Your task to perform on an android device: toggle location history Image 0: 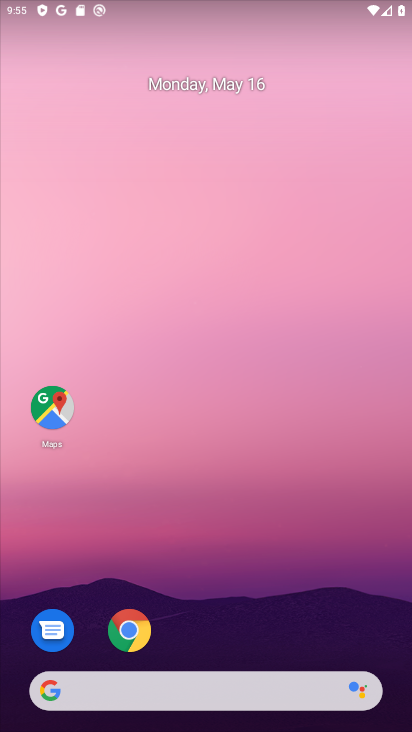
Step 0: drag from (211, 651) to (218, 1)
Your task to perform on an android device: toggle location history Image 1: 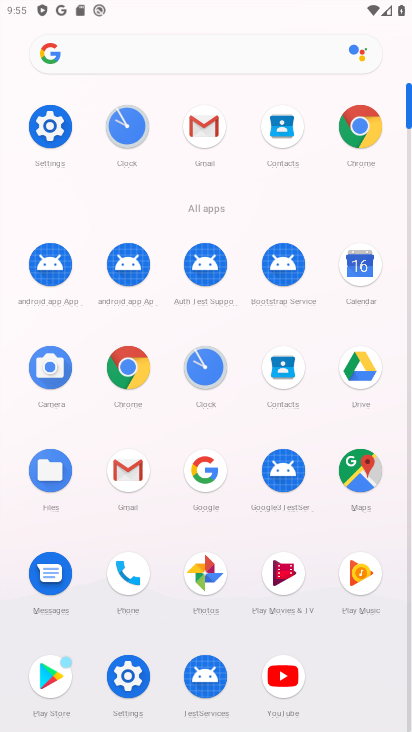
Step 1: click (56, 145)
Your task to perform on an android device: toggle location history Image 2: 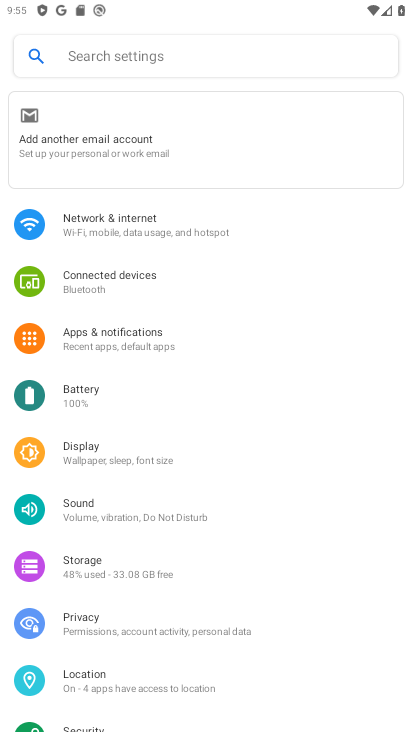
Step 2: drag from (84, 585) to (92, 437)
Your task to perform on an android device: toggle location history Image 3: 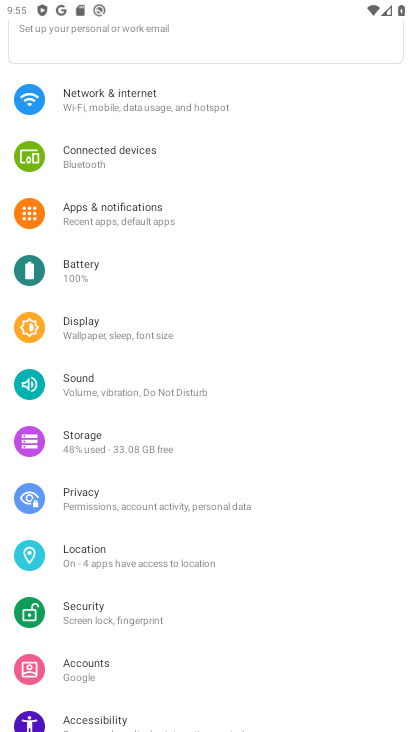
Step 3: click (101, 569)
Your task to perform on an android device: toggle location history Image 4: 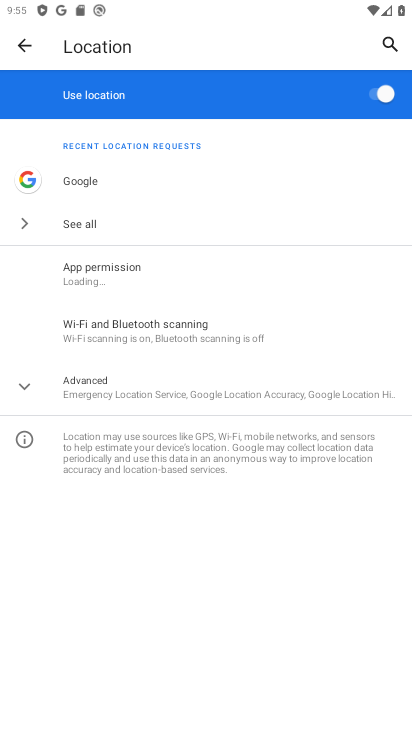
Step 4: click (134, 390)
Your task to perform on an android device: toggle location history Image 5: 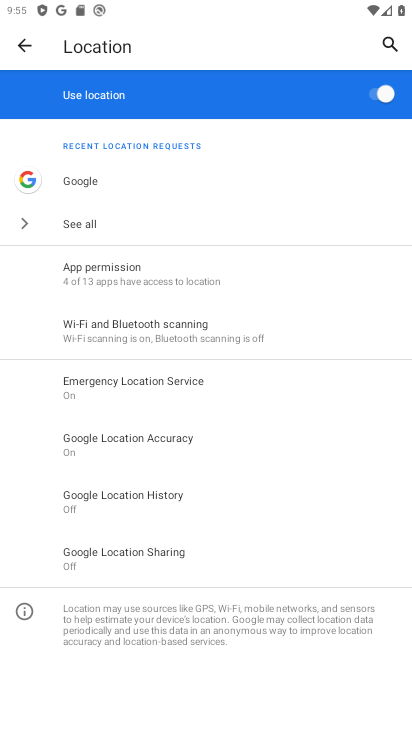
Step 5: click (148, 503)
Your task to perform on an android device: toggle location history Image 6: 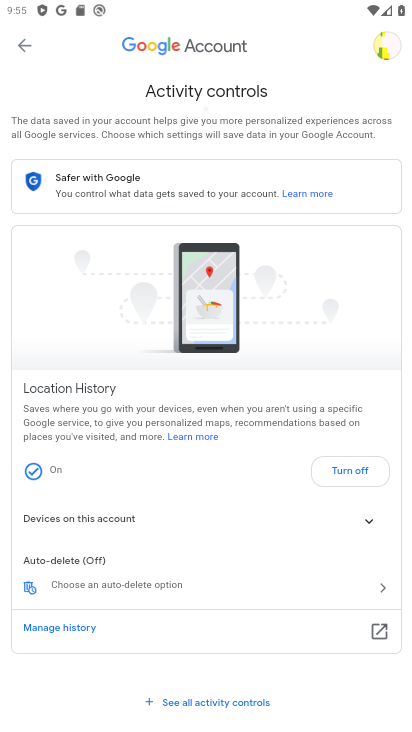
Step 6: click (353, 471)
Your task to perform on an android device: toggle location history Image 7: 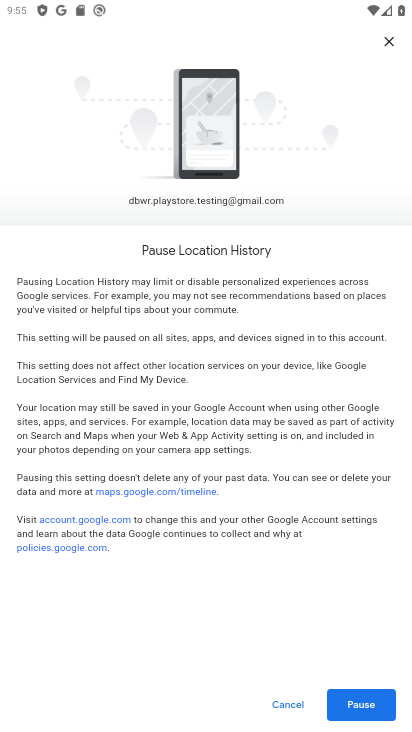
Step 7: click (362, 704)
Your task to perform on an android device: toggle location history Image 8: 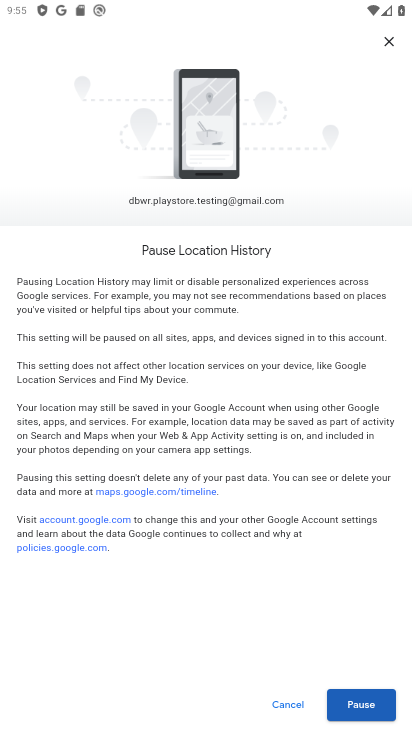
Step 8: click (363, 708)
Your task to perform on an android device: toggle location history Image 9: 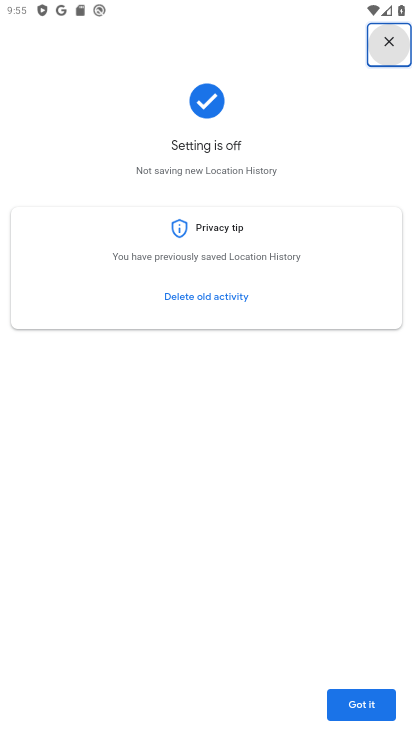
Step 9: click (363, 708)
Your task to perform on an android device: toggle location history Image 10: 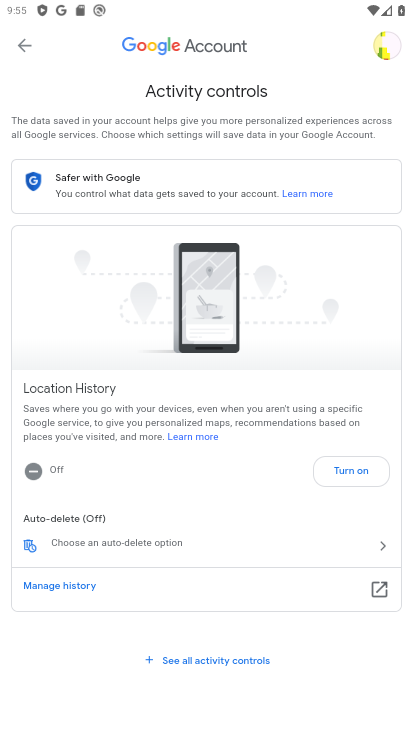
Step 10: task complete